Your task to perform on an android device: Open calendar and show me the fourth week of next month Image 0: 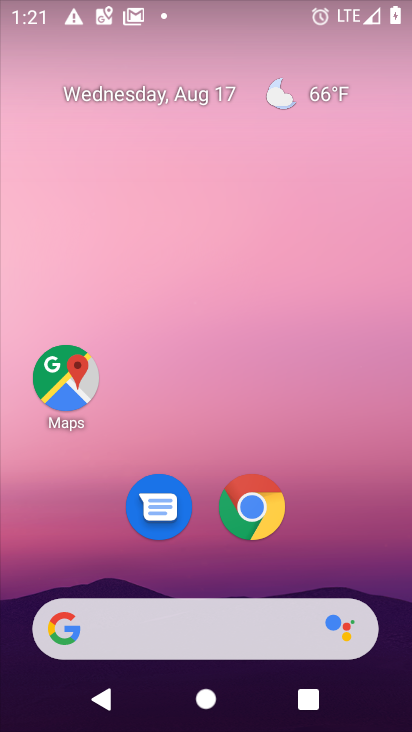
Step 0: drag from (219, 493) to (226, 6)
Your task to perform on an android device: Open calendar and show me the fourth week of next month Image 1: 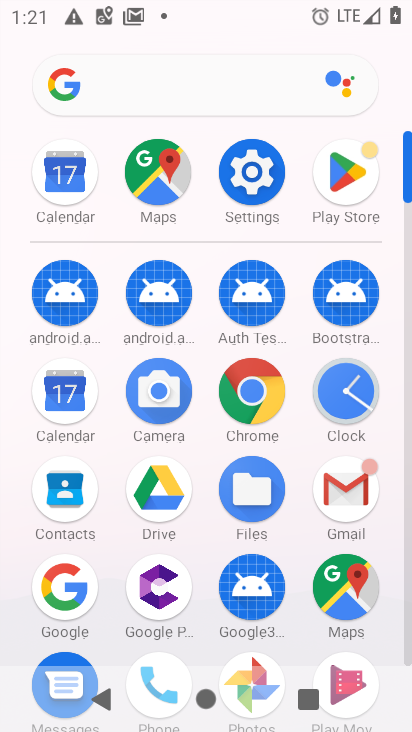
Step 1: click (74, 400)
Your task to perform on an android device: Open calendar and show me the fourth week of next month Image 2: 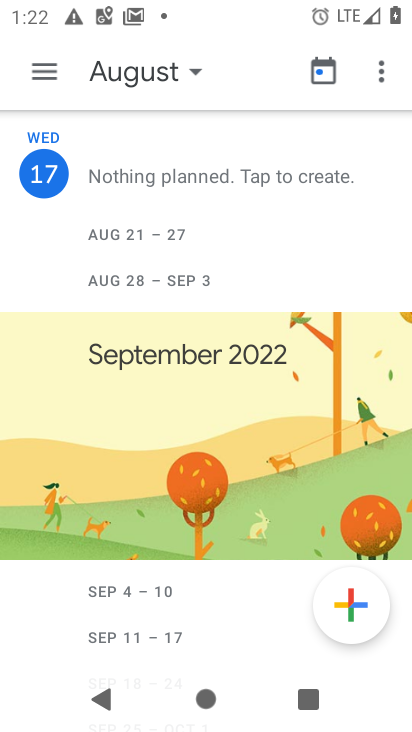
Step 2: click (27, 62)
Your task to perform on an android device: Open calendar and show me the fourth week of next month Image 3: 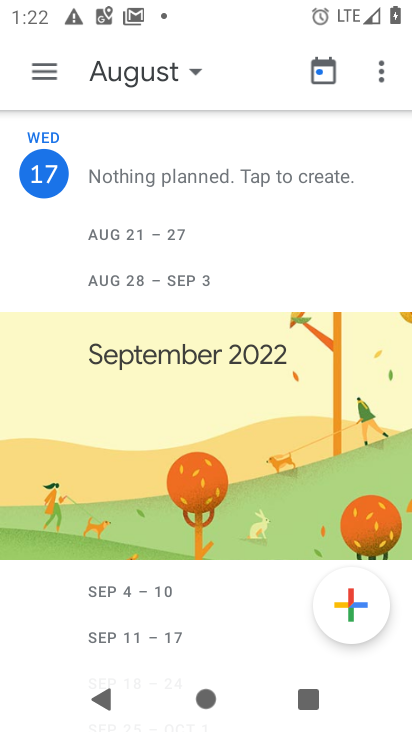
Step 3: click (55, 70)
Your task to perform on an android device: Open calendar and show me the fourth week of next month Image 4: 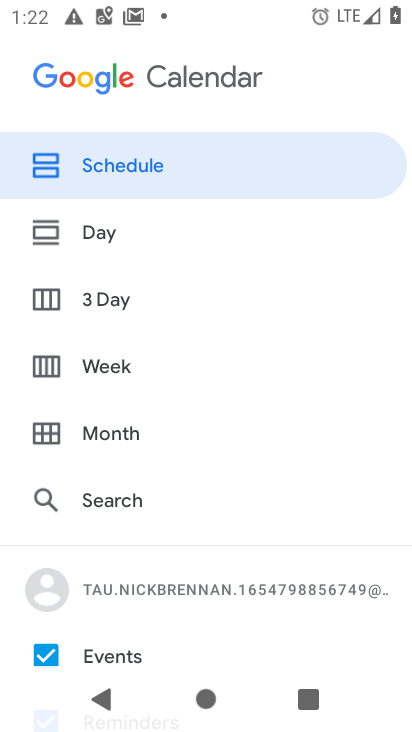
Step 4: click (80, 359)
Your task to perform on an android device: Open calendar and show me the fourth week of next month Image 5: 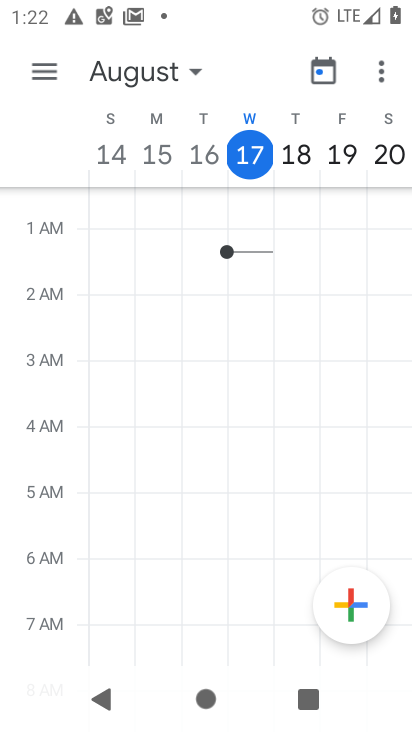
Step 5: task complete